Your task to perform on an android device: all mails in gmail Image 0: 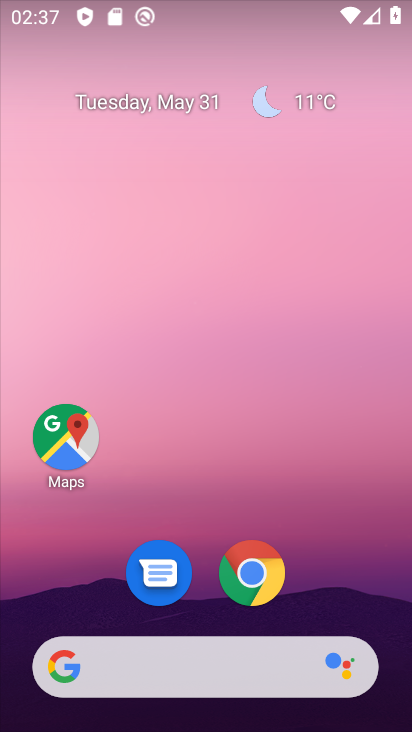
Step 0: click (267, 565)
Your task to perform on an android device: all mails in gmail Image 1: 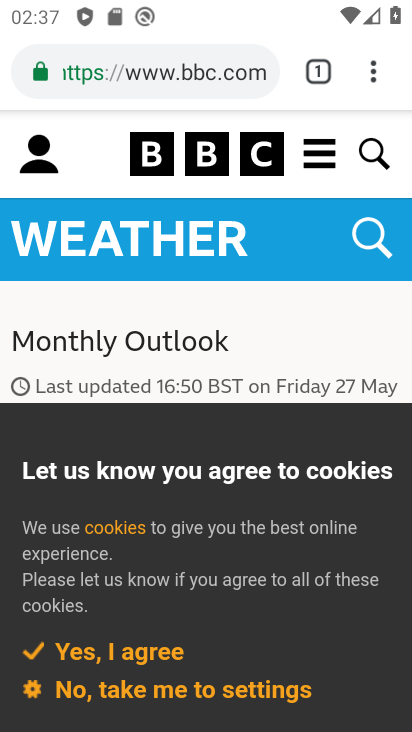
Step 1: press home button
Your task to perform on an android device: all mails in gmail Image 2: 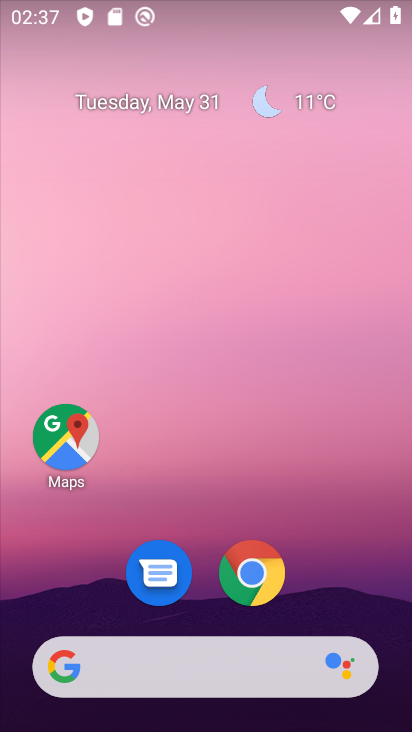
Step 2: drag from (377, 600) to (324, 266)
Your task to perform on an android device: all mails in gmail Image 3: 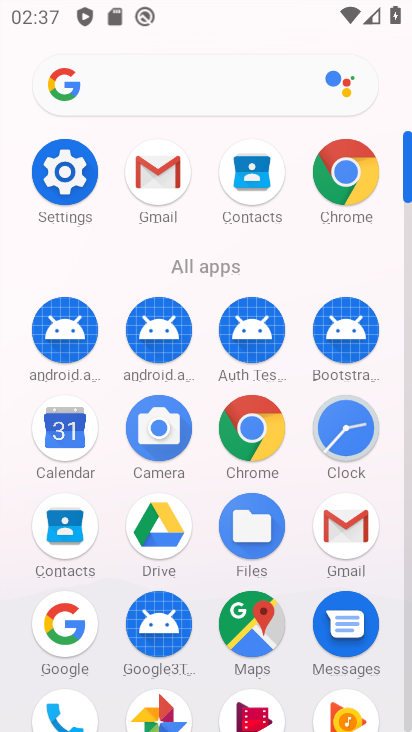
Step 3: click (168, 184)
Your task to perform on an android device: all mails in gmail Image 4: 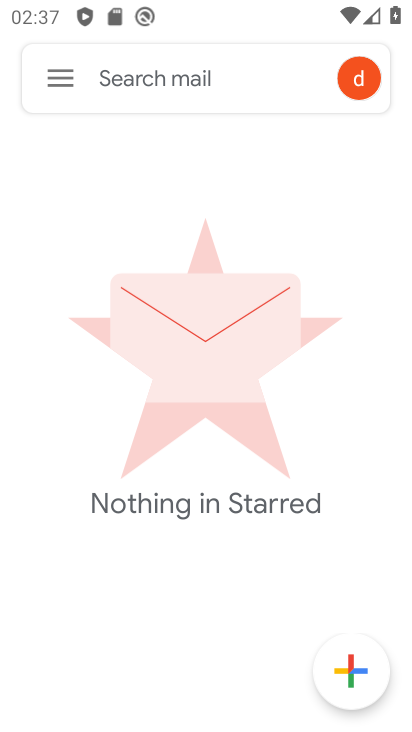
Step 4: click (61, 81)
Your task to perform on an android device: all mails in gmail Image 5: 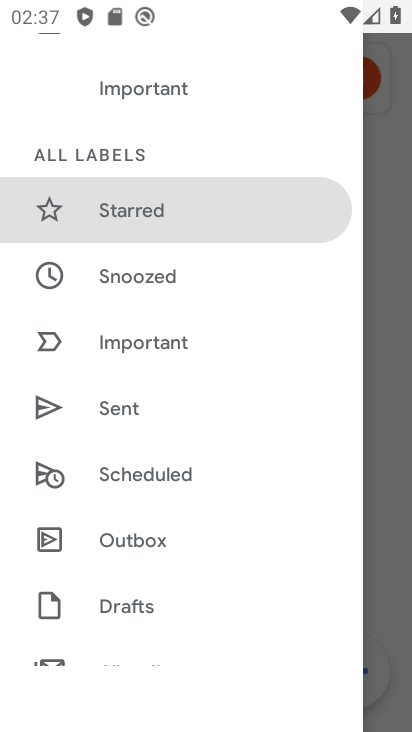
Step 5: drag from (171, 575) to (119, 248)
Your task to perform on an android device: all mails in gmail Image 6: 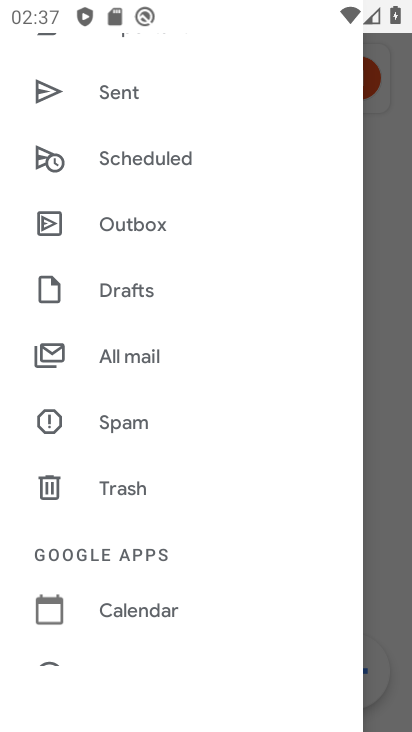
Step 6: click (137, 363)
Your task to perform on an android device: all mails in gmail Image 7: 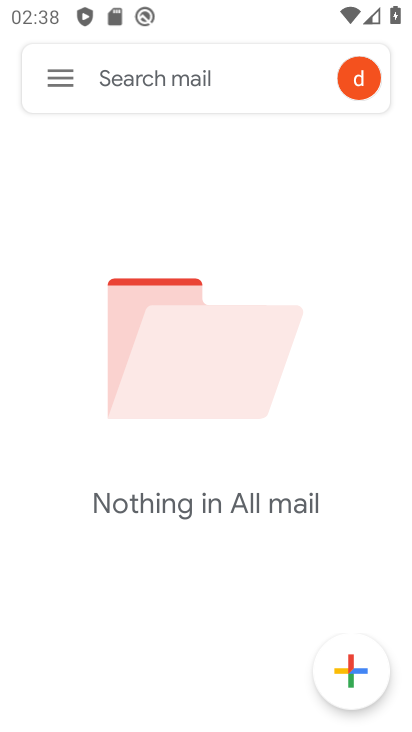
Step 7: task complete